Your task to perform on an android device: turn off improve location accuracy Image 0: 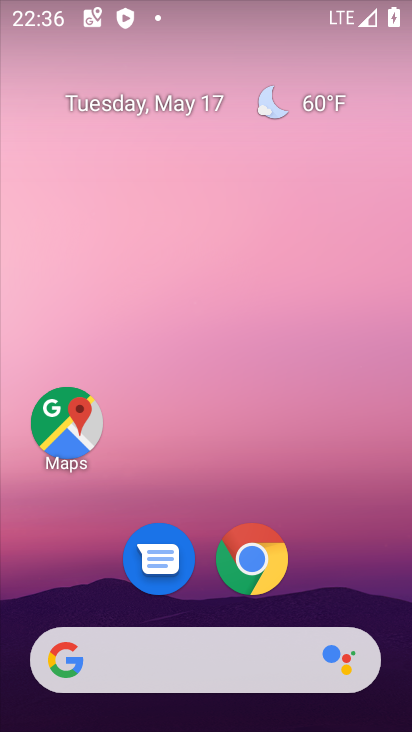
Step 0: drag from (381, 587) to (351, 169)
Your task to perform on an android device: turn off improve location accuracy Image 1: 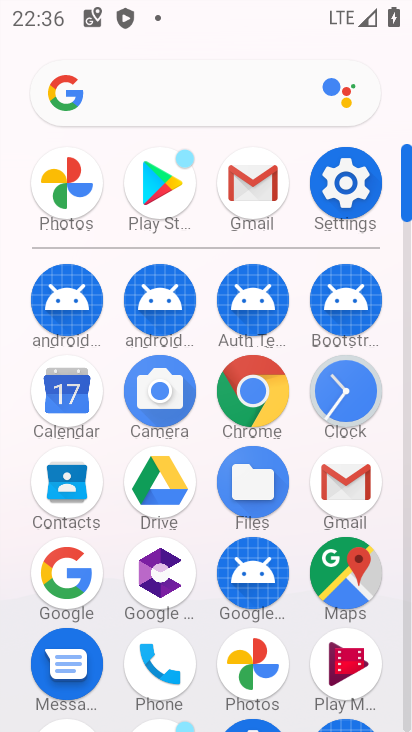
Step 1: click (354, 192)
Your task to perform on an android device: turn off improve location accuracy Image 2: 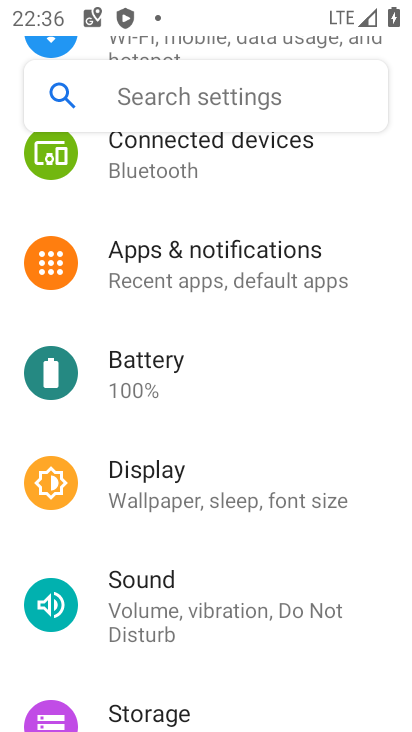
Step 2: drag from (243, 628) to (270, 176)
Your task to perform on an android device: turn off improve location accuracy Image 3: 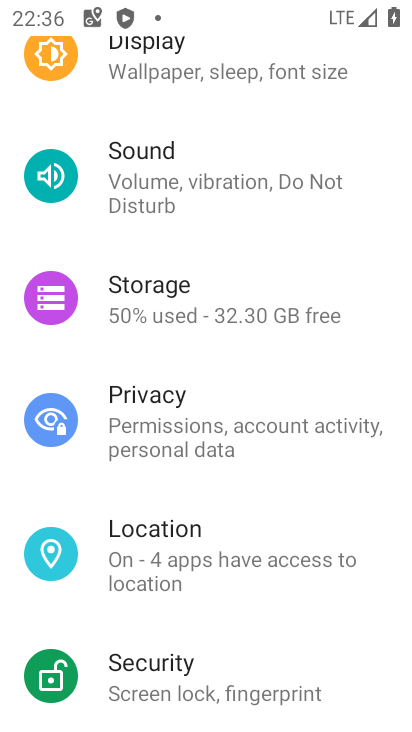
Step 3: click (187, 552)
Your task to perform on an android device: turn off improve location accuracy Image 4: 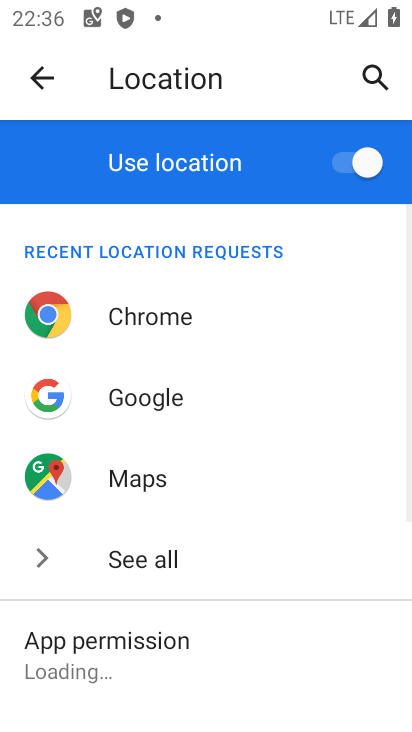
Step 4: drag from (340, 634) to (367, 120)
Your task to perform on an android device: turn off improve location accuracy Image 5: 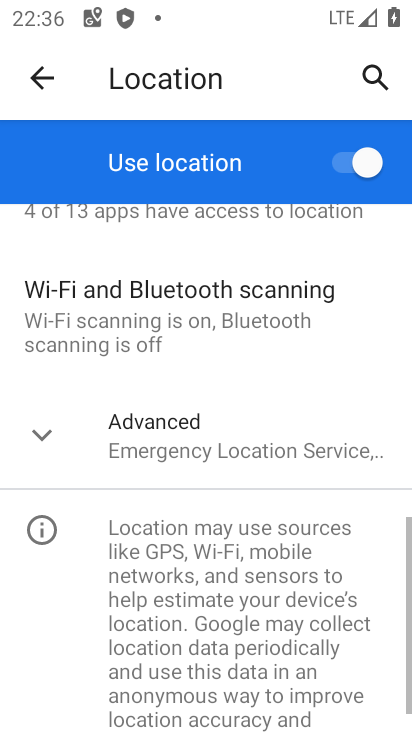
Step 5: click (367, 120)
Your task to perform on an android device: turn off improve location accuracy Image 6: 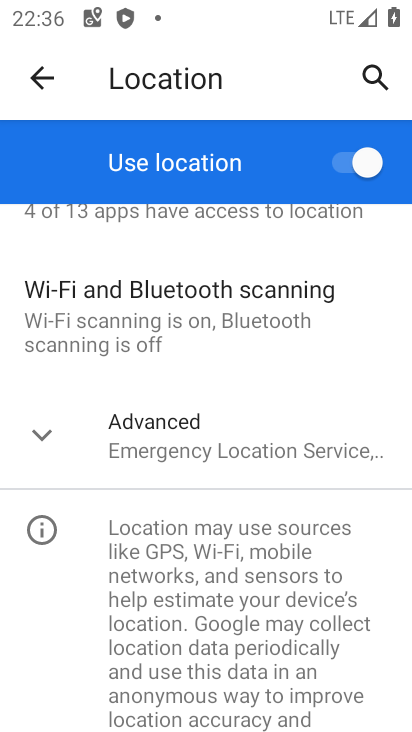
Step 6: click (214, 449)
Your task to perform on an android device: turn off improve location accuracy Image 7: 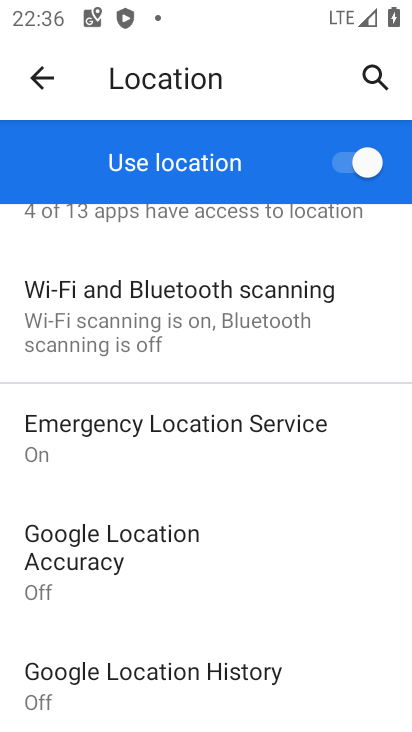
Step 7: drag from (283, 610) to (337, 382)
Your task to perform on an android device: turn off improve location accuracy Image 8: 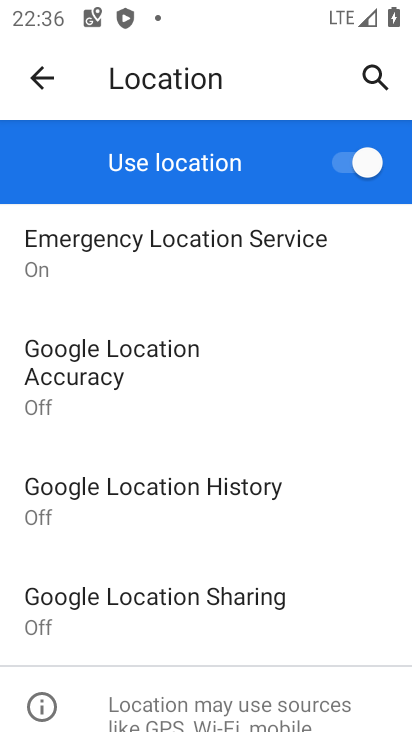
Step 8: click (150, 367)
Your task to perform on an android device: turn off improve location accuracy Image 9: 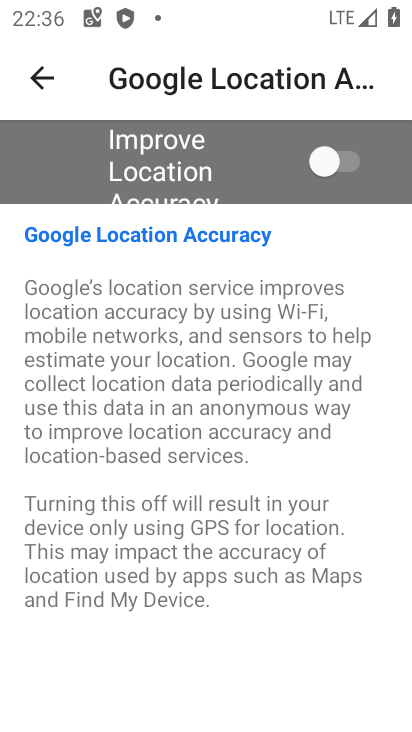
Step 9: click (336, 167)
Your task to perform on an android device: turn off improve location accuracy Image 10: 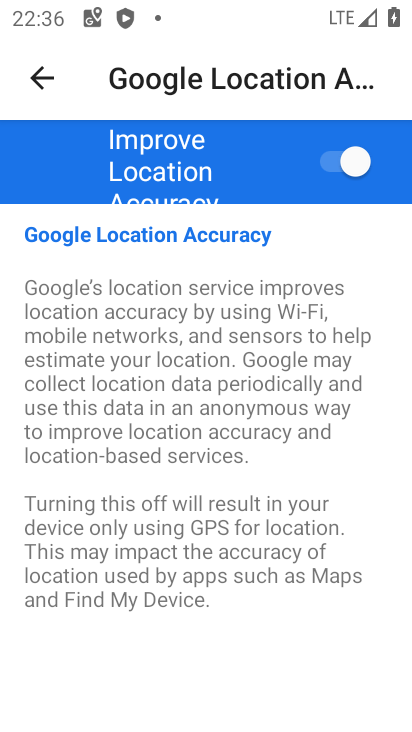
Step 10: click (336, 167)
Your task to perform on an android device: turn off improve location accuracy Image 11: 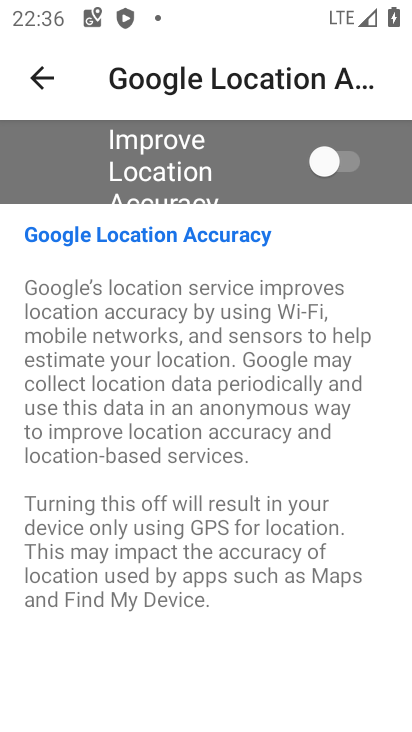
Step 11: task complete